Your task to perform on an android device: Open wifi settings Image 0: 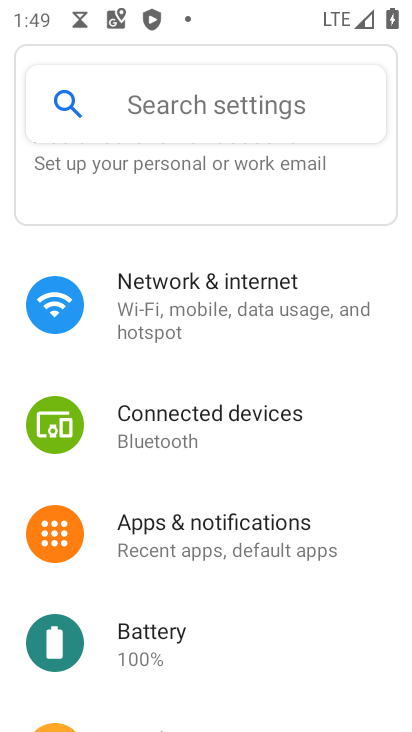
Step 0: click (191, 297)
Your task to perform on an android device: Open wifi settings Image 1: 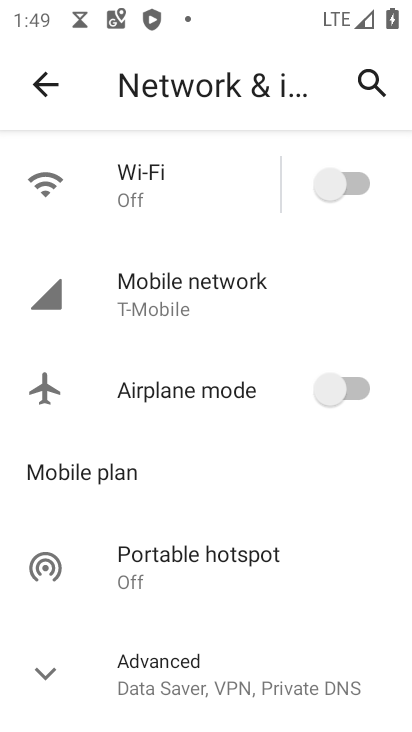
Step 1: click (151, 173)
Your task to perform on an android device: Open wifi settings Image 2: 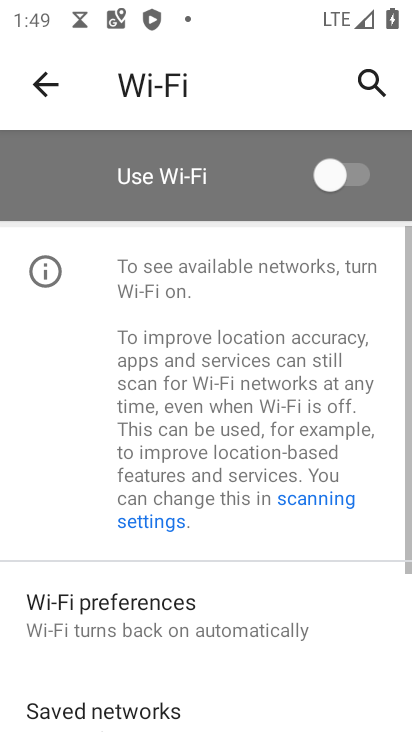
Step 2: task complete